Your task to perform on an android device: Go to Amazon Image 0: 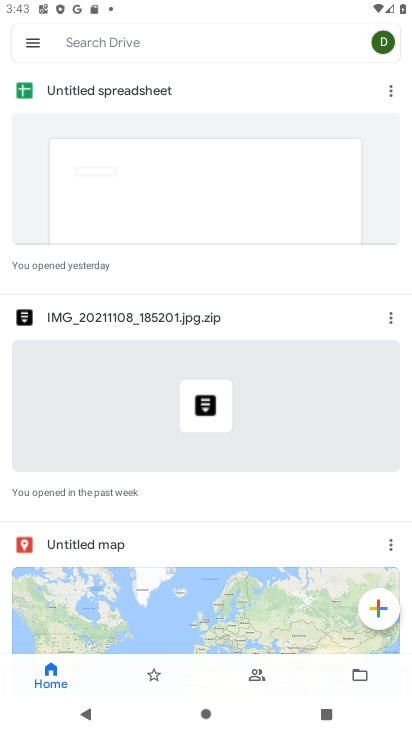
Step 0: press home button
Your task to perform on an android device: Go to Amazon Image 1: 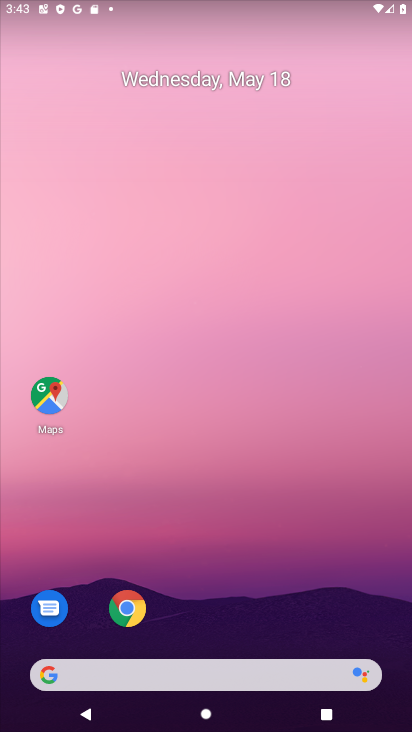
Step 1: click (117, 607)
Your task to perform on an android device: Go to Amazon Image 2: 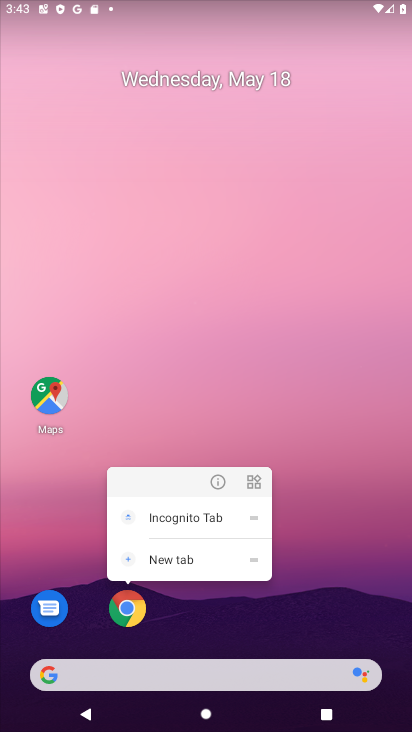
Step 2: click (132, 615)
Your task to perform on an android device: Go to Amazon Image 3: 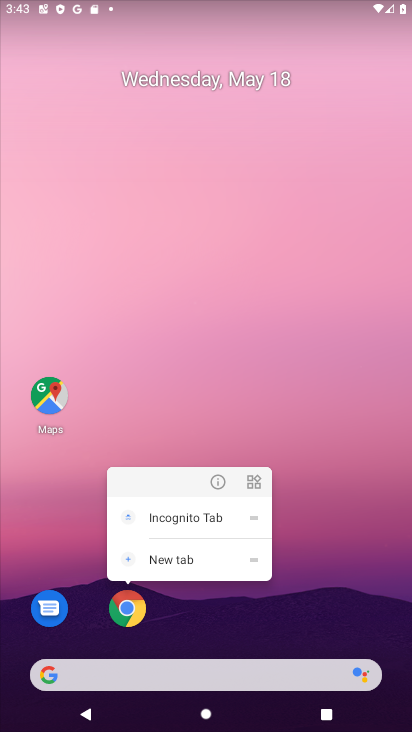
Step 3: click (133, 610)
Your task to perform on an android device: Go to Amazon Image 4: 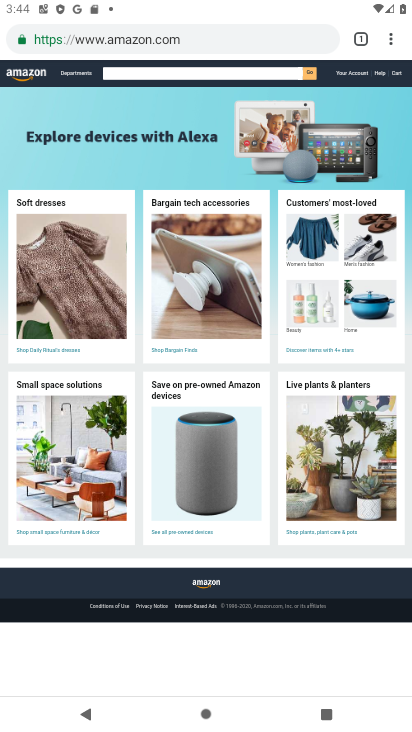
Step 4: task complete